Your task to perform on an android device: open app "DoorDash - Dasher" Image 0: 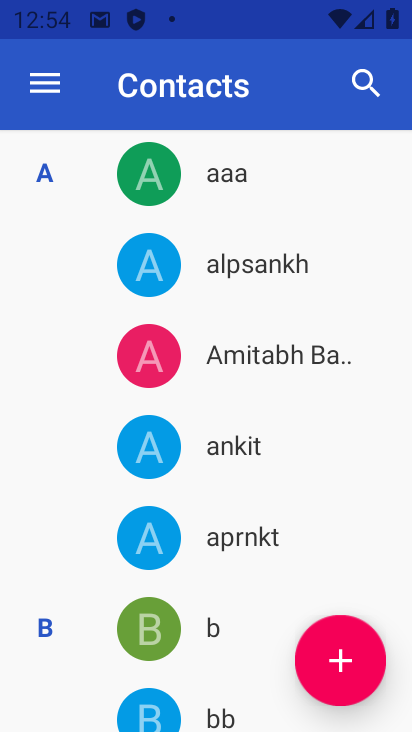
Step 0: press back button
Your task to perform on an android device: open app "DoorDash - Dasher" Image 1: 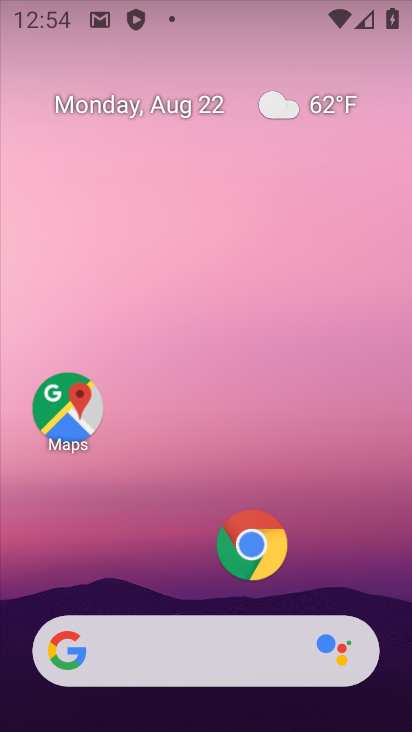
Step 1: drag from (121, 565) to (230, 79)
Your task to perform on an android device: open app "DoorDash - Dasher" Image 2: 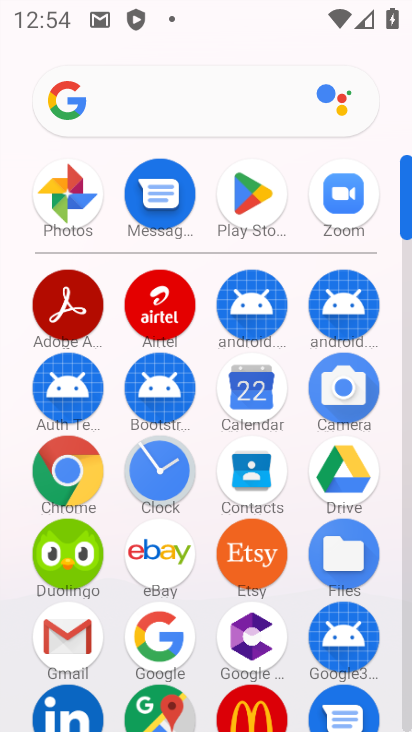
Step 2: click (253, 189)
Your task to perform on an android device: open app "DoorDash - Dasher" Image 3: 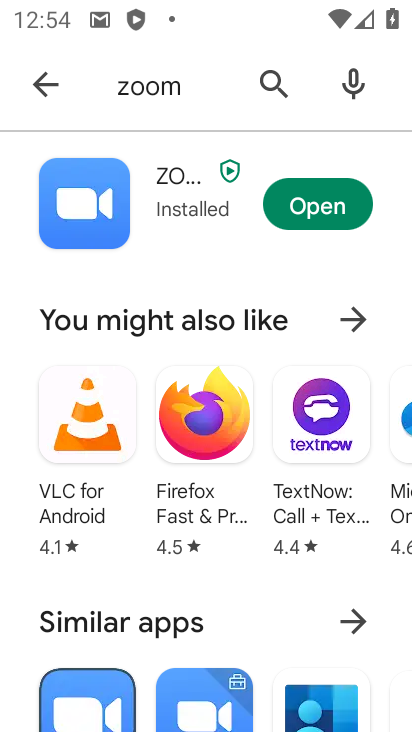
Step 3: click (265, 78)
Your task to perform on an android device: open app "DoorDash - Dasher" Image 4: 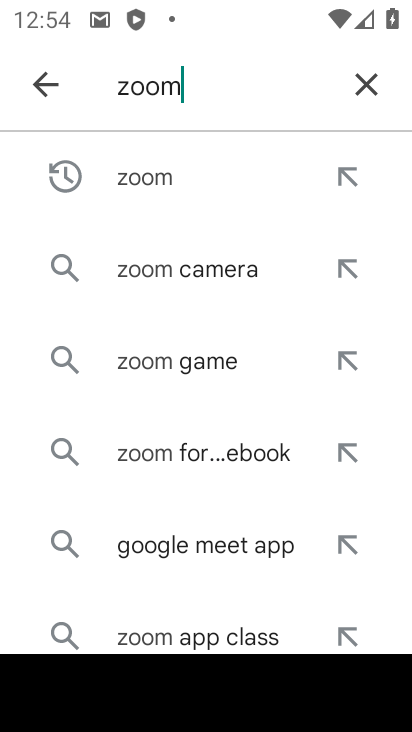
Step 4: click (370, 79)
Your task to perform on an android device: open app "DoorDash - Dasher" Image 5: 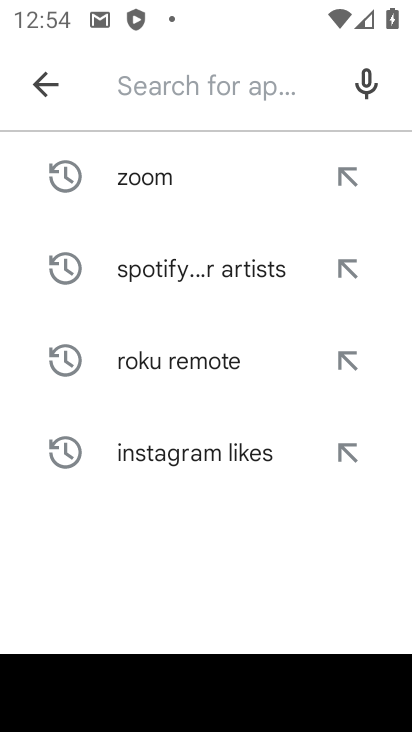
Step 5: type "doordash"
Your task to perform on an android device: open app "DoorDash - Dasher" Image 6: 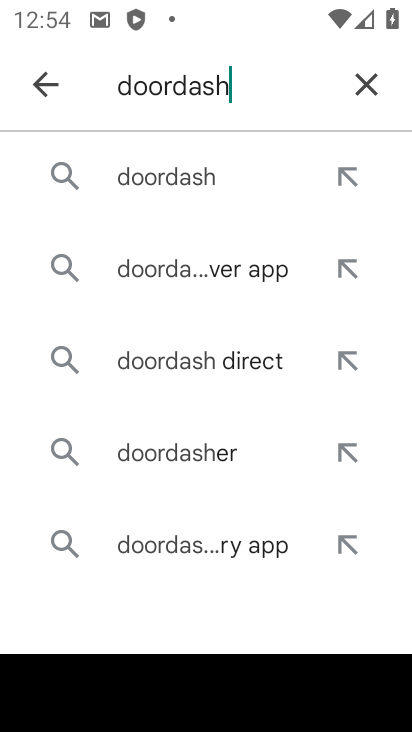
Step 6: click (151, 163)
Your task to perform on an android device: open app "DoorDash - Dasher" Image 7: 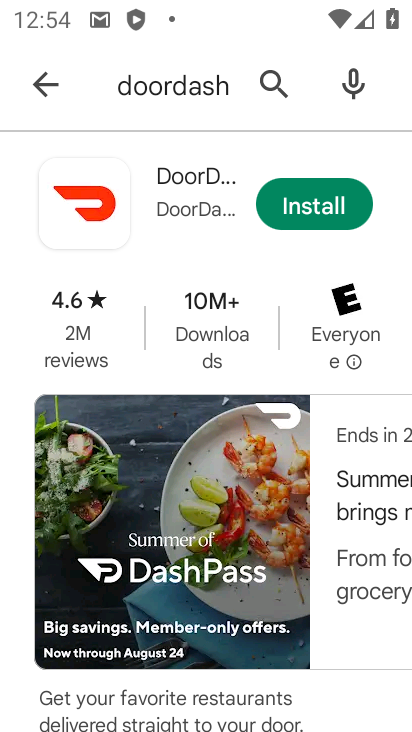
Step 7: task complete